Your task to perform on an android device: Search for Italian restaurants on Maps Image 0: 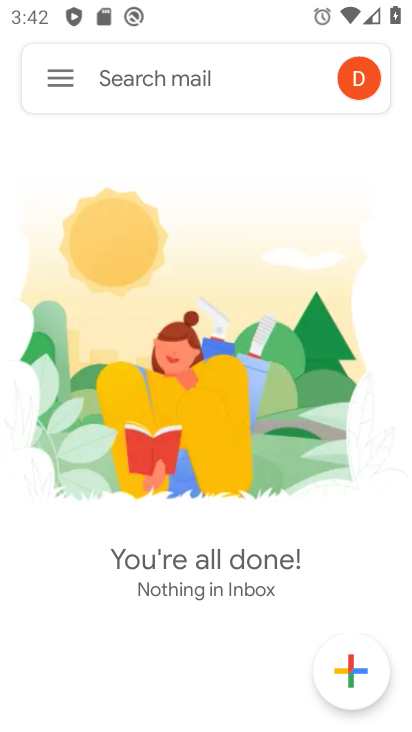
Step 0: press back button
Your task to perform on an android device: Search for Italian restaurants on Maps Image 1: 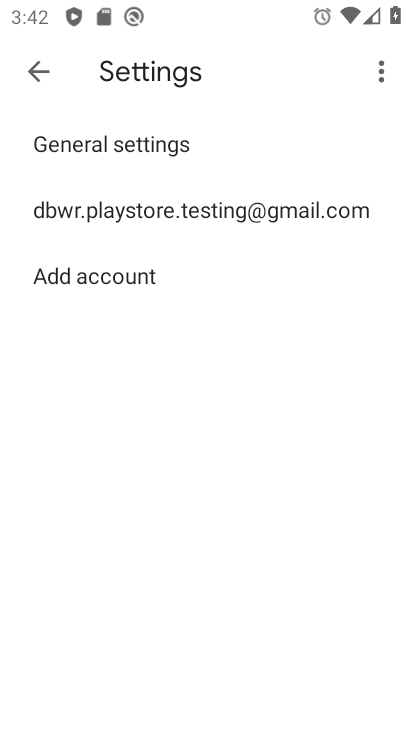
Step 1: press back button
Your task to perform on an android device: Search for Italian restaurants on Maps Image 2: 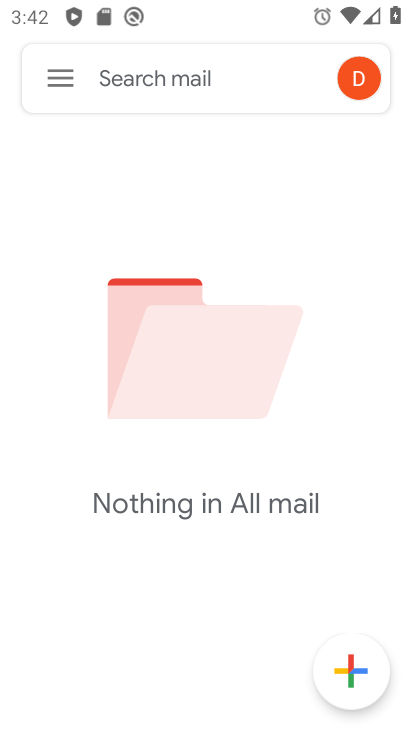
Step 2: press back button
Your task to perform on an android device: Search for Italian restaurants on Maps Image 3: 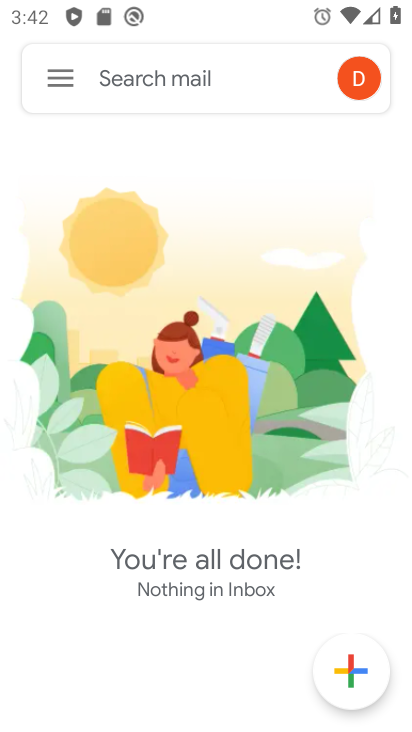
Step 3: press home button
Your task to perform on an android device: Search for Italian restaurants on Maps Image 4: 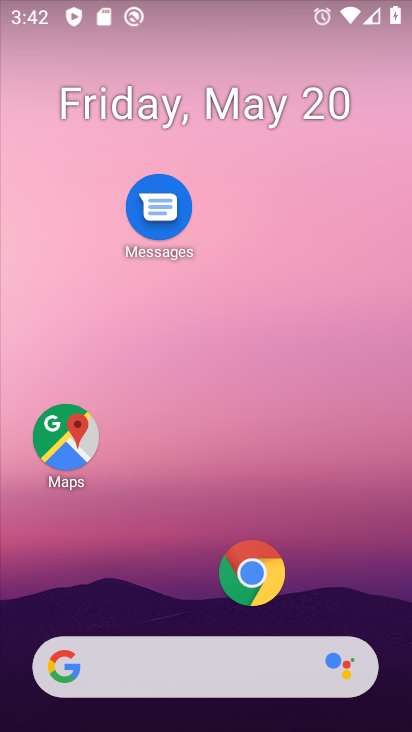
Step 4: click (54, 448)
Your task to perform on an android device: Search for Italian restaurants on Maps Image 5: 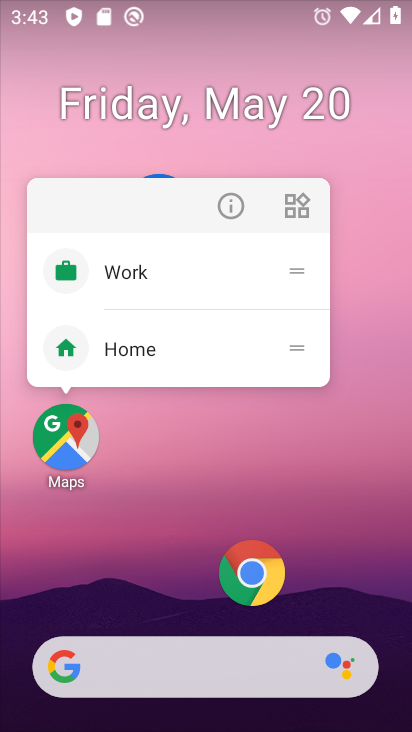
Step 5: click (54, 448)
Your task to perform on an android device: Search for Italian restaurants on Maps Image 6: 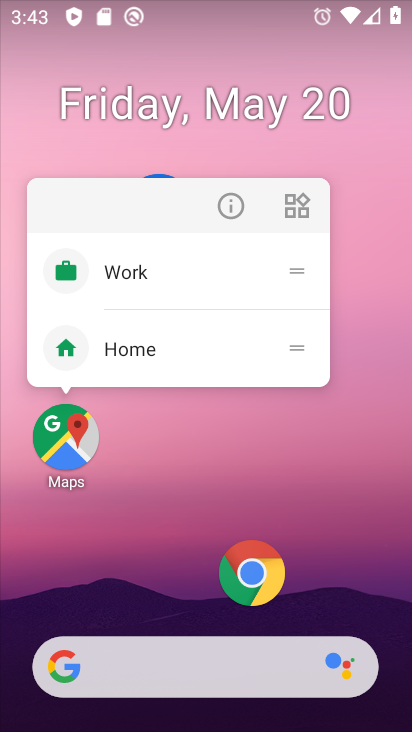
Step 6: click (54, 448)
Your task to perform on an android device: Search for Italian restaurants on Maps Image 7: 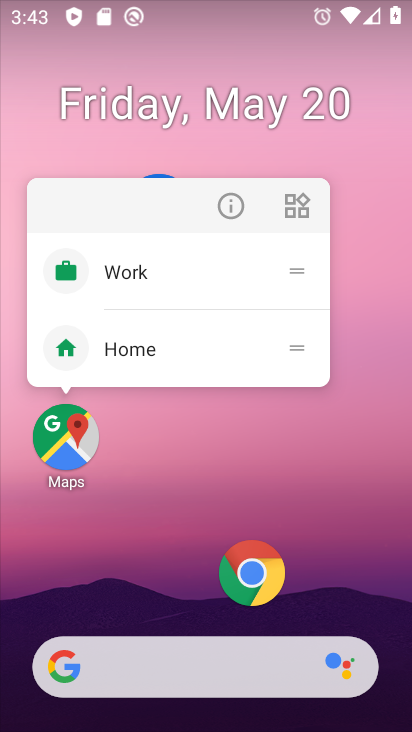
Step 7: click (54, 448)
Your task to perform on an android device: Search for Italian restaurants on Maps Image 8: 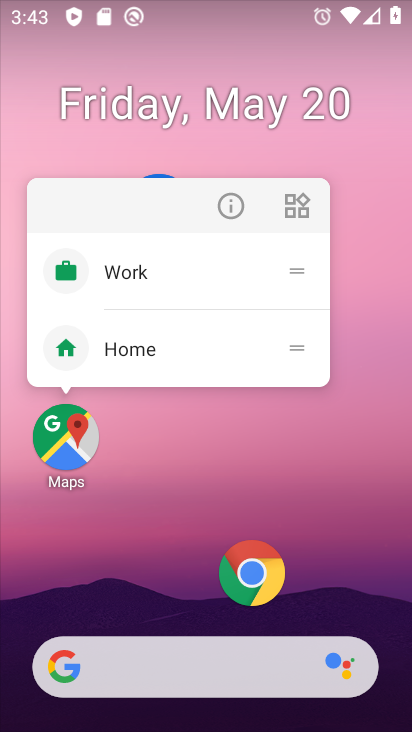
Step 8: click (54, 448)
Your task to perform on an android device: Search for Italian restaurants on Maps Image 9: 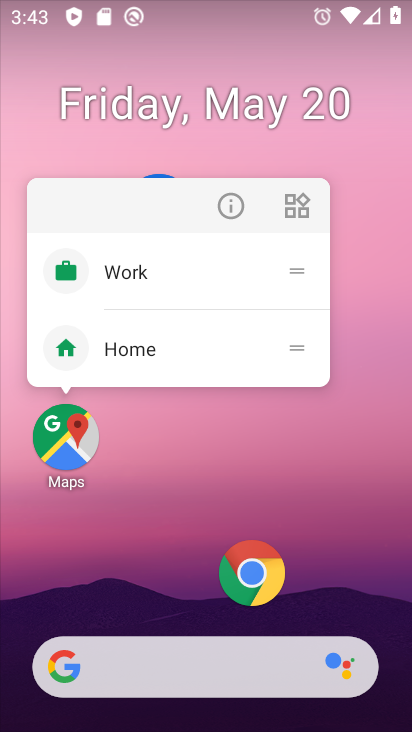
Step 9: click (54, 448)
Your task to perform on an android device: Search for Italian restaurants on Maps Image 10: 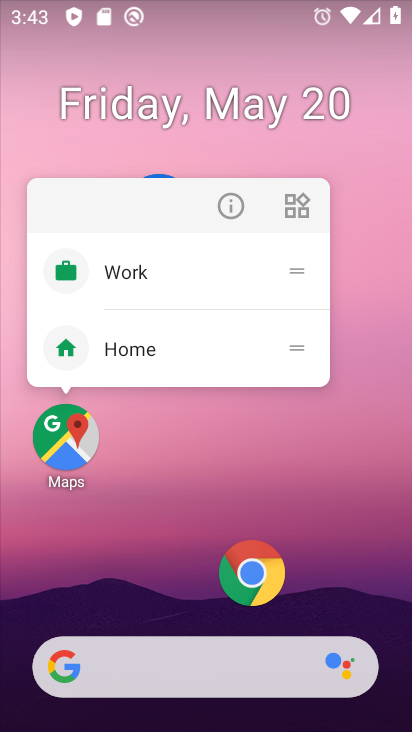
Step 10: click (54, 448)
Your task to perform on an android device: Search for Italian restaurants on Maps Image 11: 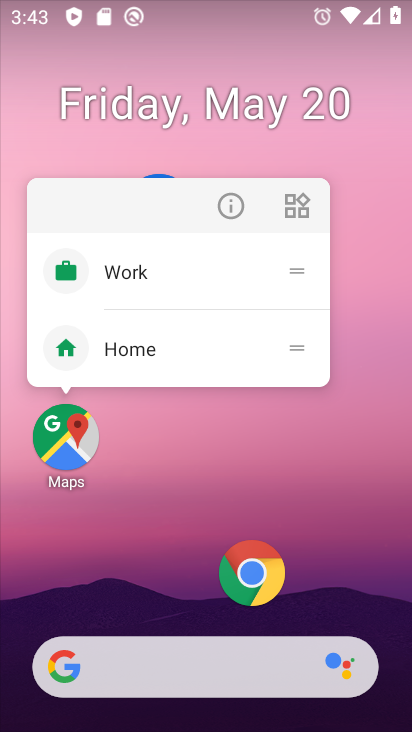
Step 11: click (76, 451)
Your task to perform on an android device: Search for Italian restaurants on Maps Image 12: 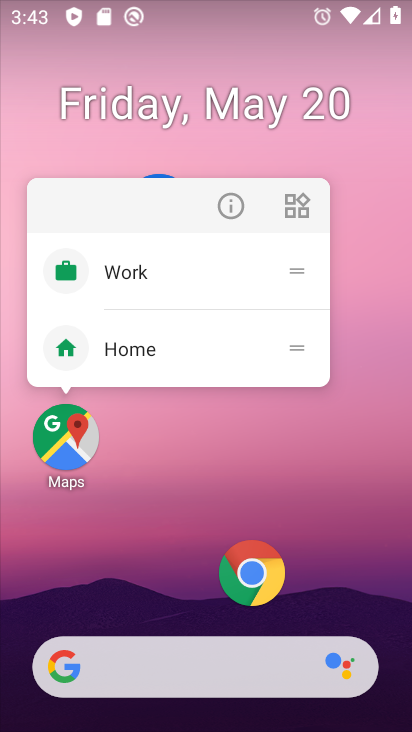
Step 12: click (76, 451)
Your task to perform on an android device: Search for Italian restaurants on Maps Image 13: 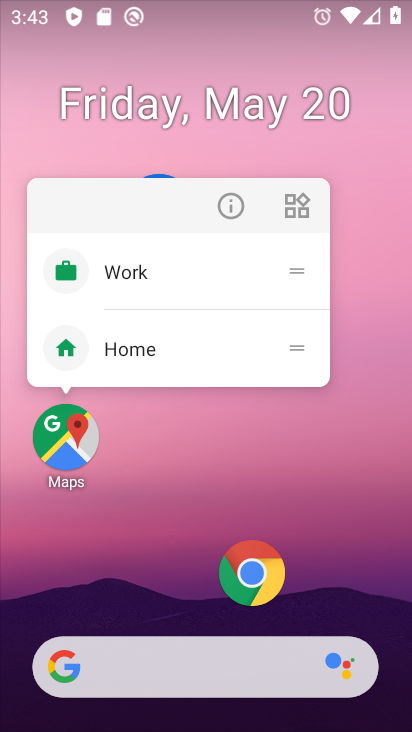
Step 13: click (66, 430)
Your task to perform on an android device: Search for Italian restaurants on Maps Image 14: 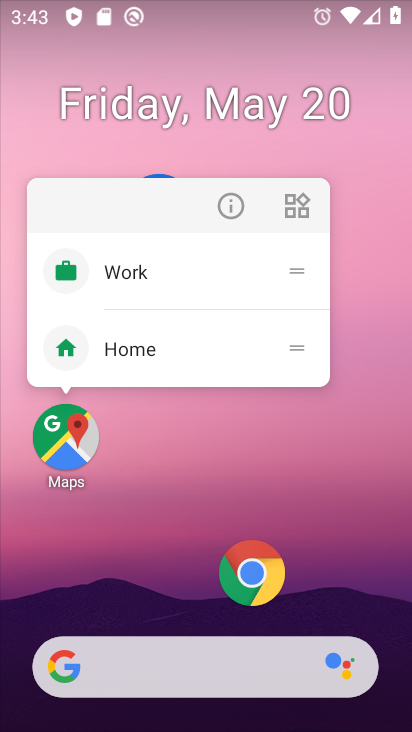
Step 14: click (66, 430)
Your task to perform on an android device: Search for Italian restaurants on Maps Image 15: 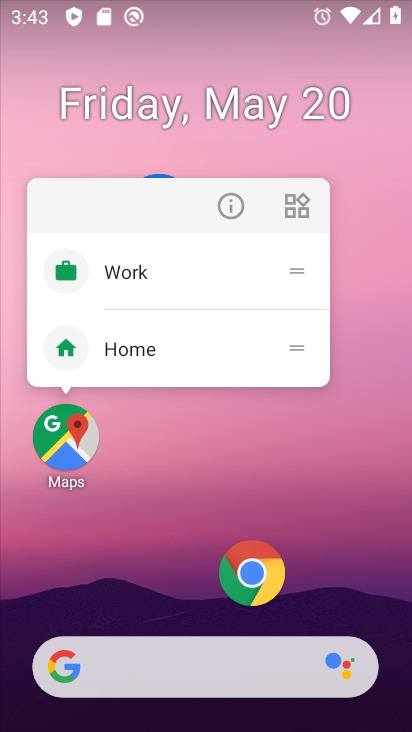
Step 15: click (66, 430)
Your task to perform on an android device: Search for Italian restaurants on Maps Image 16: 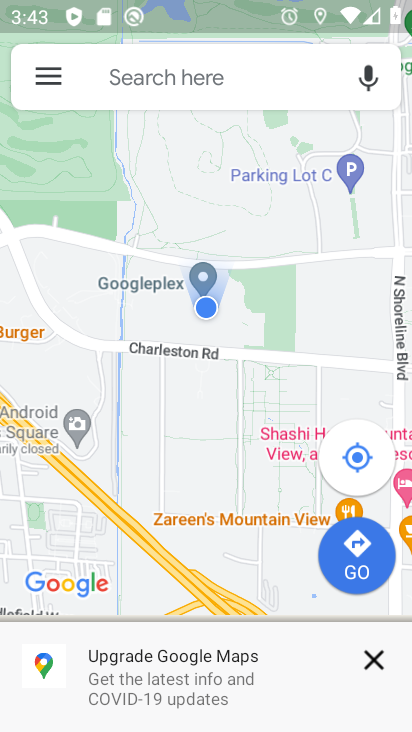
Step 16: click (122, 78)
Your task to perform on an android device: Search for Italian restaurants on Maps Image 17: 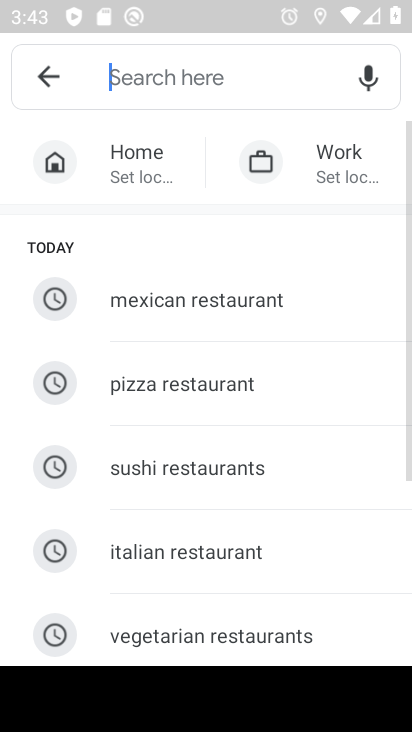
Step 17: click (216, 568)
Your task to perform on an android device: Search for Italian restaurants on Maps Image 18: 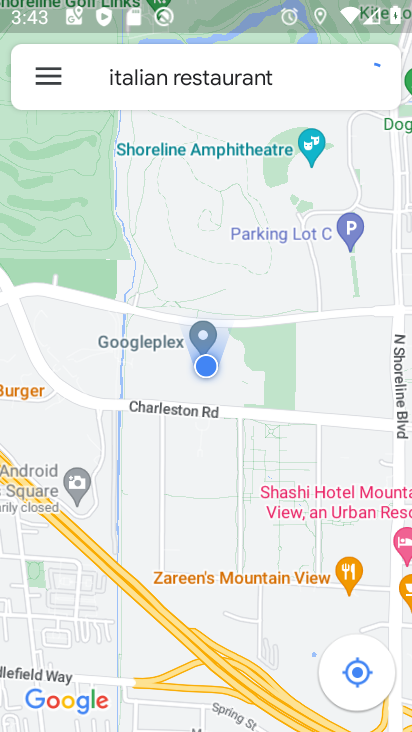
Step 18: task complete